Your task to perform on an android device: What's a good restaurant in San Francisco? Image 0: 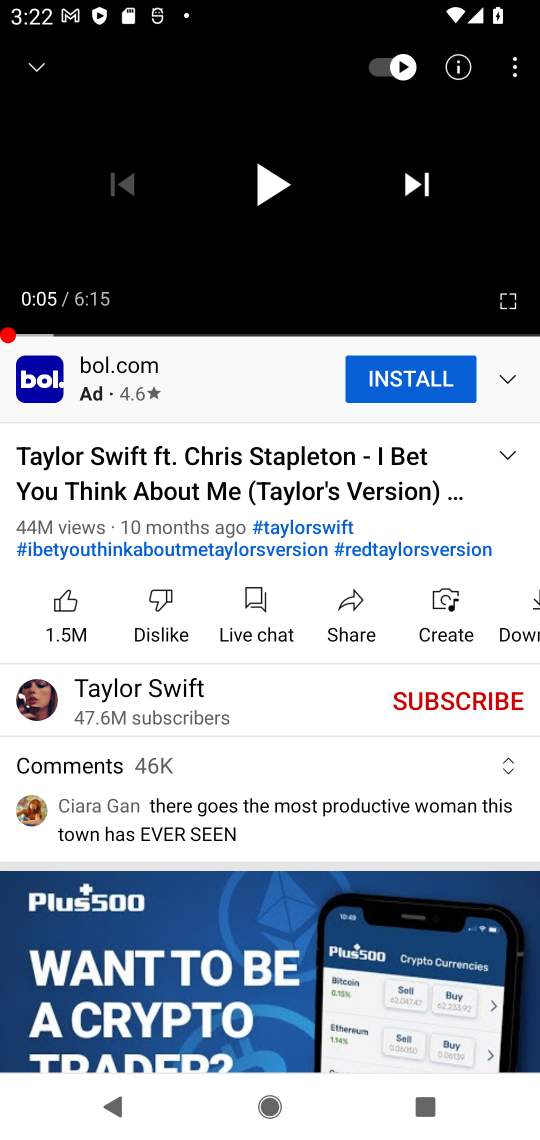
Step 0: press home button
Your task to perform on an android device: What's a good restaurant in San Francisco? Image 1: 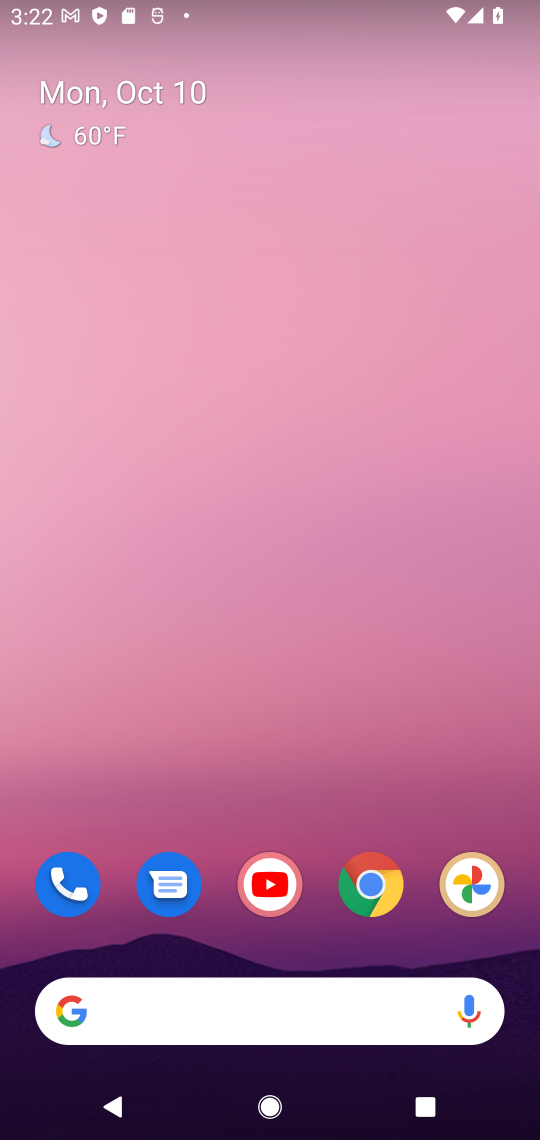
Step 1: click (375, 880)
Your task to perform on an android device: What's a good restaurant in San Francisco? Image 2: 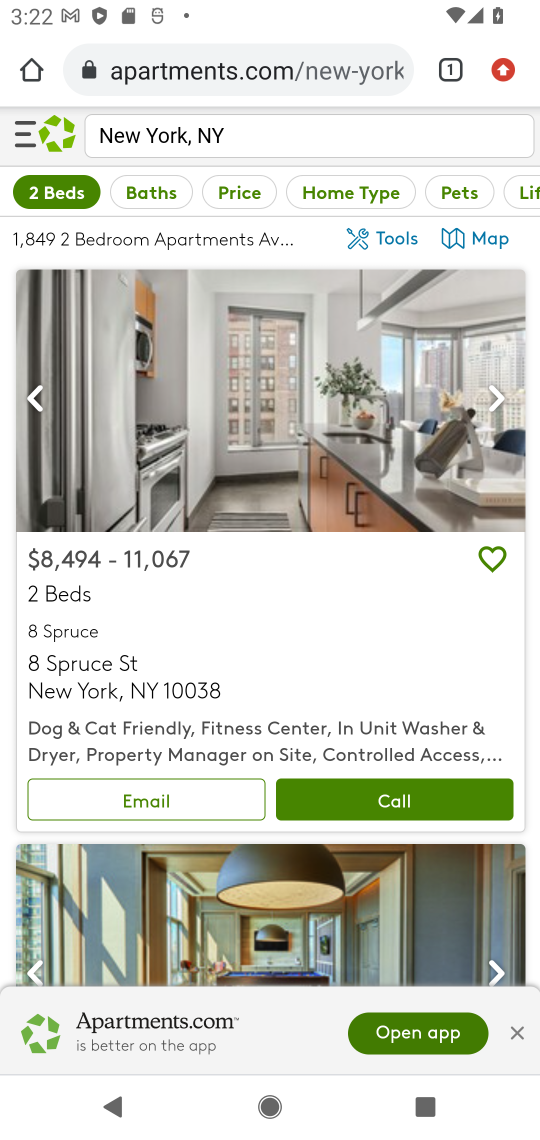
Step 2: click (194, 76)
Your task to perform on an android device: What's a good restaurant in San Francisco? Image 3: 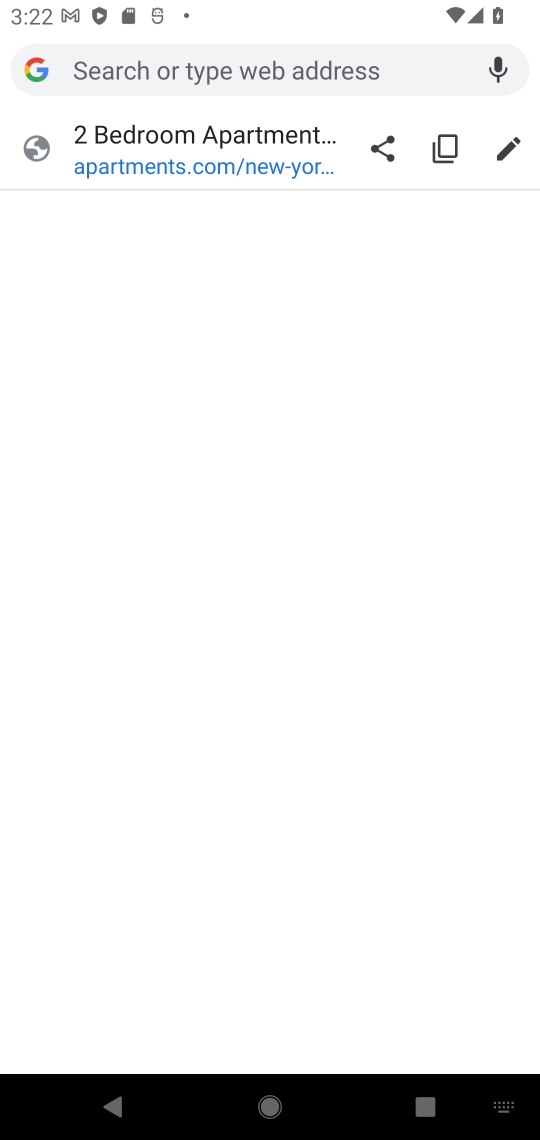
Step 3: type "a good restaurant in San Francisco"
Your task to perform on an android device: What's a good restaurant in San Francisco? Image 4: 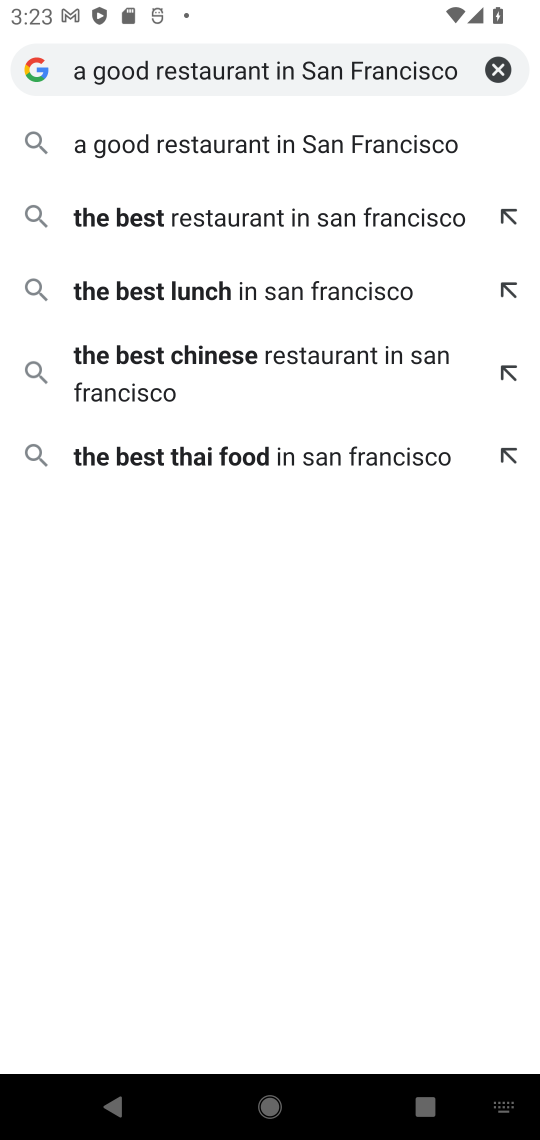
Step 4: click (273, 155)
Your task to perform on an android device: What's a good restaurant in San Francisco? Image 5: 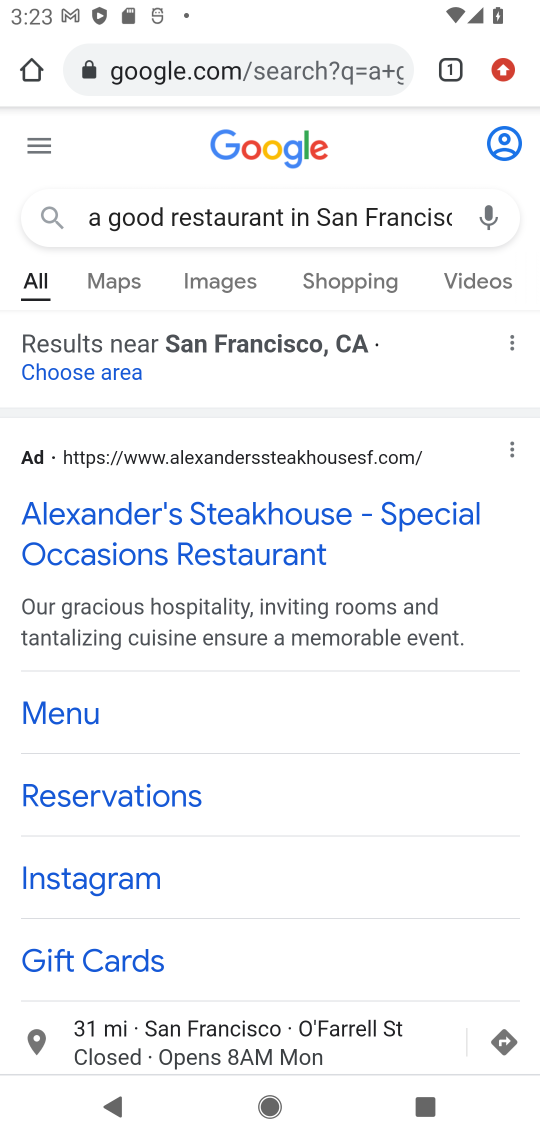
Step 5: click (134, 526)
Your task to perform on an android device: What's a good restaurant in San Francisco? Image 6: 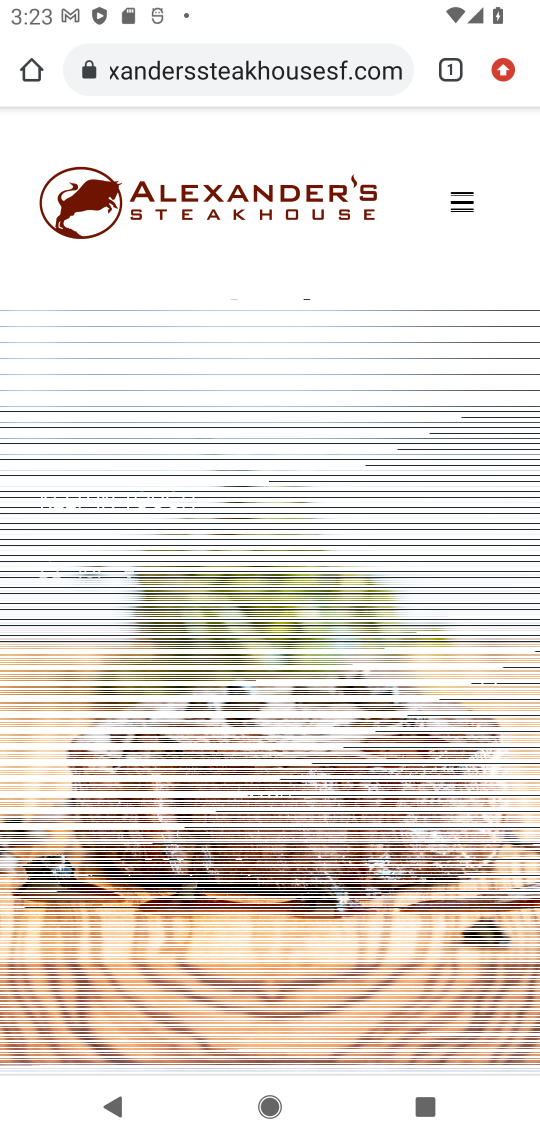
Step 6: task complete